Your task to perform on an android device: toggle pop-ups in chrome Image 0: 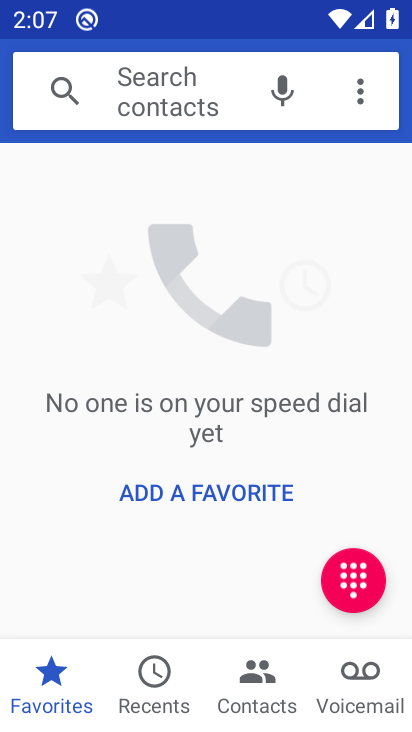
Step 0: press home button
Your task to perform on an android device: toggle pop-ups in chrome Image 1: 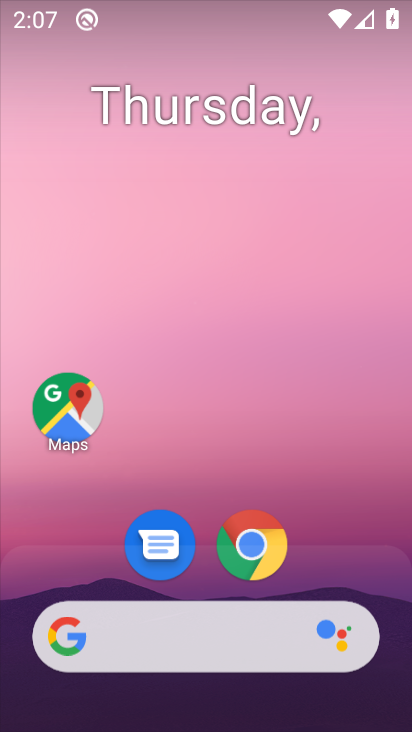
Step 1: click (244, 552)
Your task to perform on an android device: toggle pop-ups in chrome Image 2: 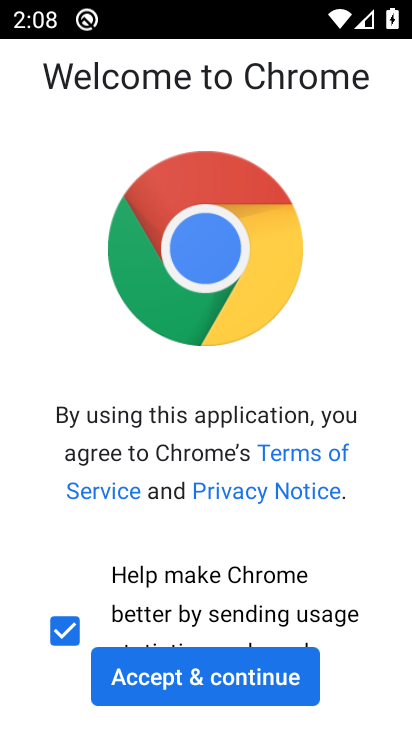
Step 2: click (243, 681)
Your task to perform on an android device: toggle pop-ups in chrome Image 3: 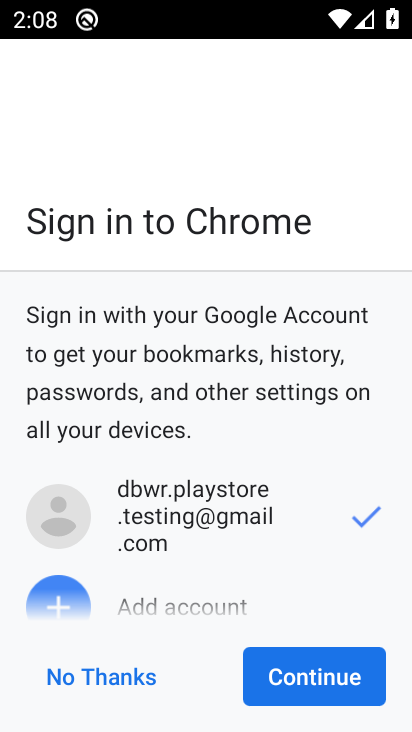
Step 3: click (308, 691)
Your task to perform on an android device: toggle pop-ups in chrome Image 4: 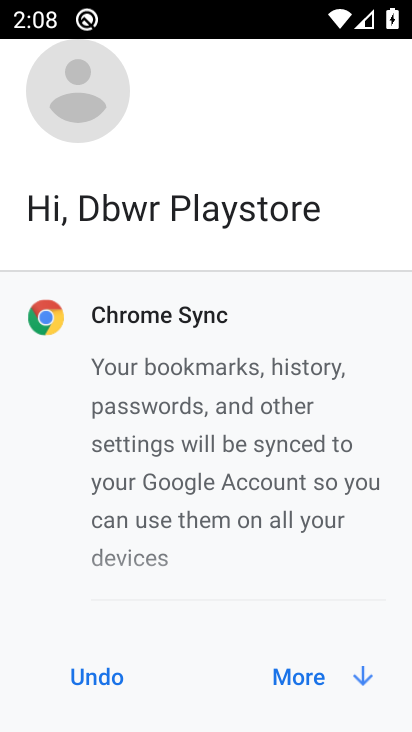
Step 4: click (309, 680)
Your task to perform on an android device: toggle pop-ups in chrome Image 5: 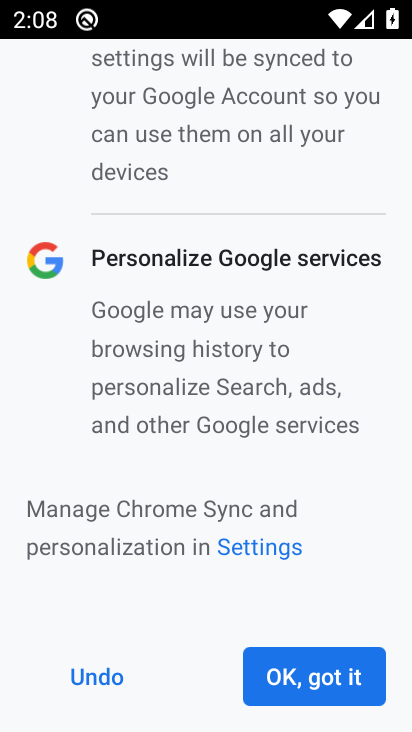
Step 5: click (309, 680)
Your task to perform on an android device: toggle pop-ups in chrome Image 6: 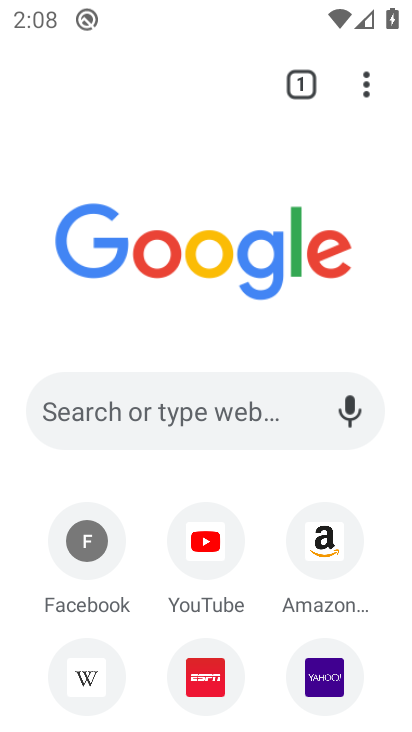
Step 6: click (367, 86)
Your task to perform on an android device: toggle pop-ups in chrome Image 7: 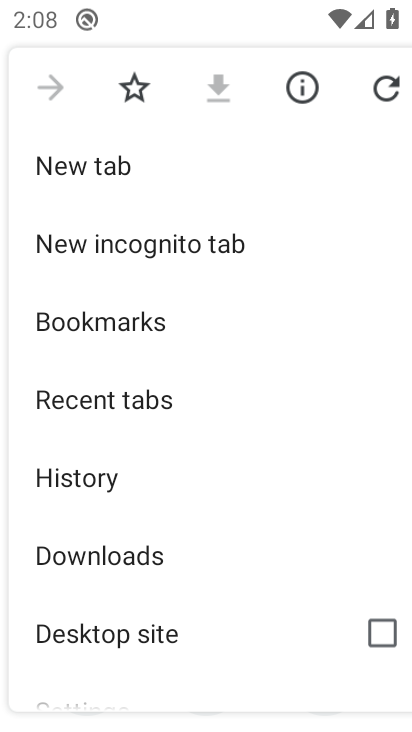
Step 7: drag from (145, 610) to (146, 161)
Your task to perform on an android device: toggle pop-ups in chrome Image 8: 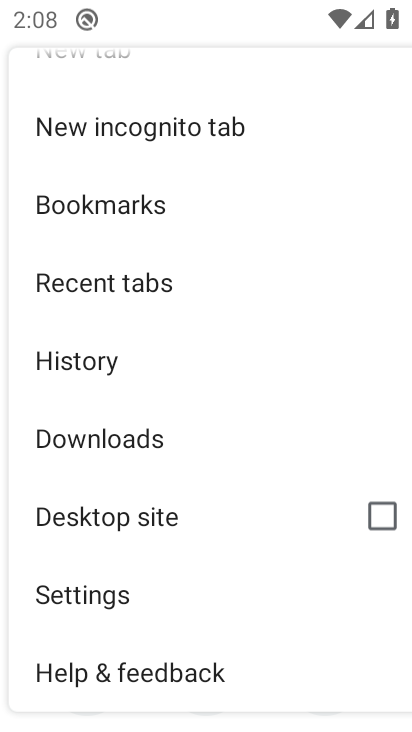
Step 8: click (106, 598)
Your task to perform on an android device: toggle pop-ups in chrome Image 9: 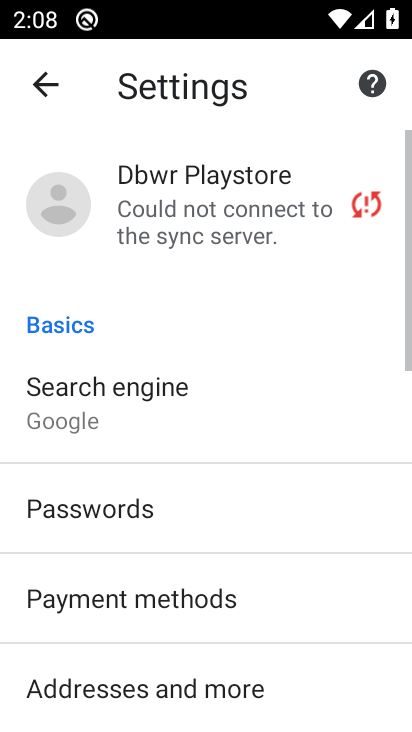
Step 9: drag from (164, 667) to (132, 110)
Your task to perform on an android device: toggle pop-ups in chrome Image 10: 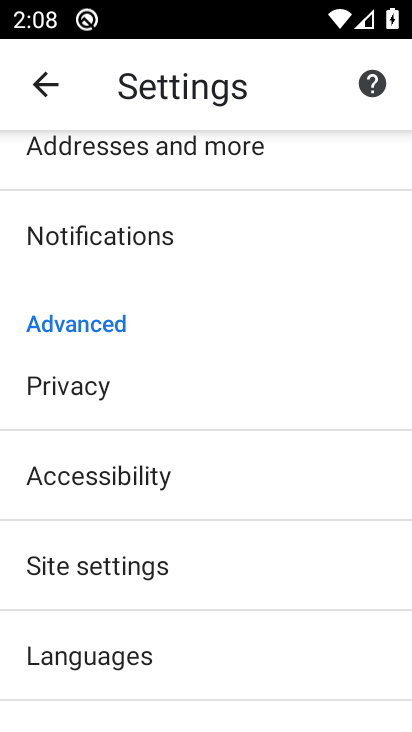
Step 10: click (104, 564)
Your task to perform on an android device: toggle pop-ups in chrome Image 11: 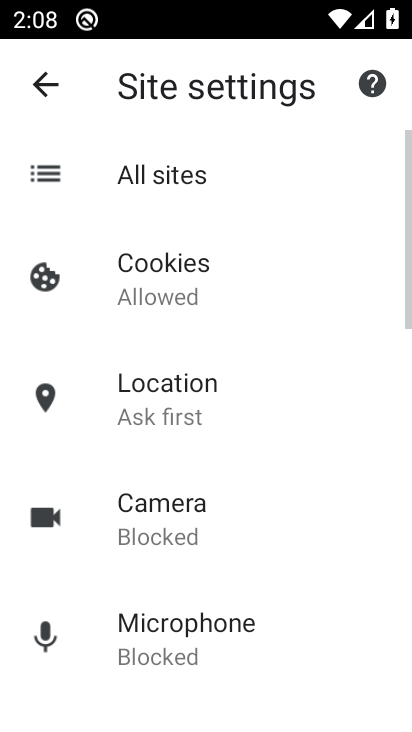
Step 11: drag from (161, 652) to (165, 221)
Your task to perform on an android device: toggle pop-ups in chrome Image 12: 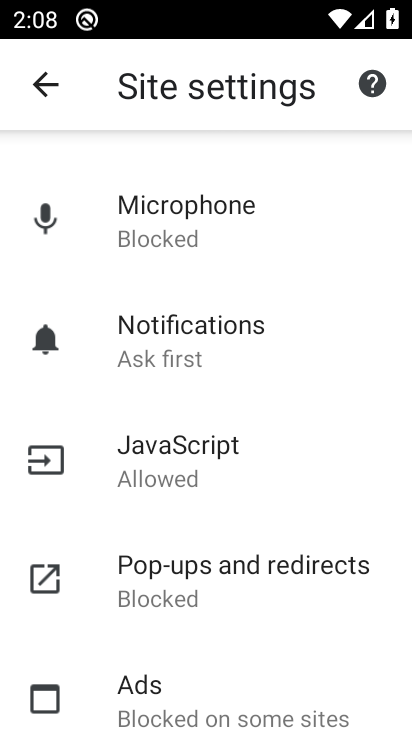
Step 12: click (171, 589)
Your task to perform on an android device: toggle pop-ups in chrome Image 13: 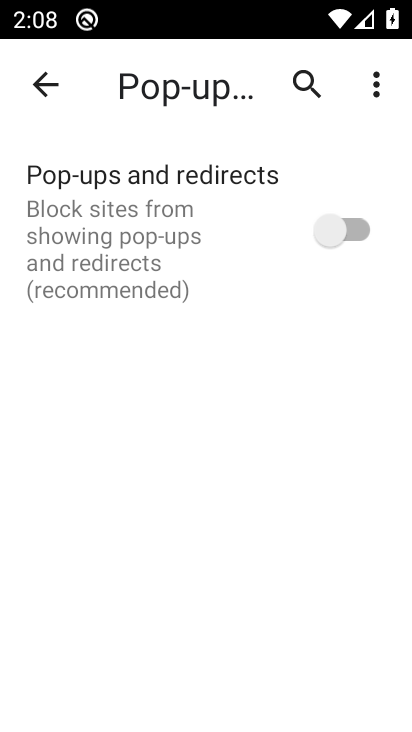
Step 13: click (360, 230)
Your task to perform on an android device: toggle pop-ups in chrome Image 14: 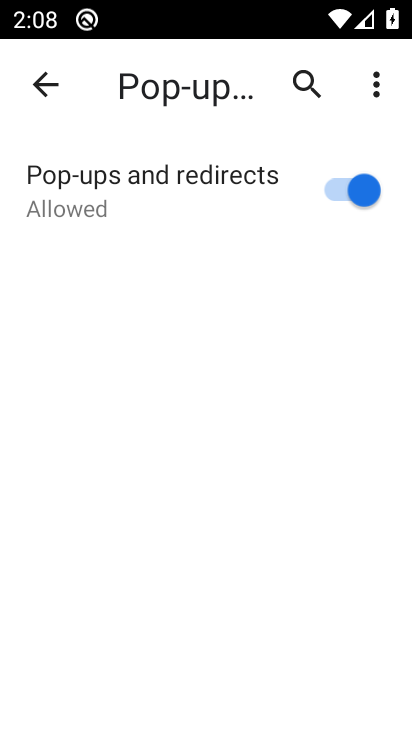
Step 14: task complete